Your task to perform on an android device: star an email in the gmail app Image 0: 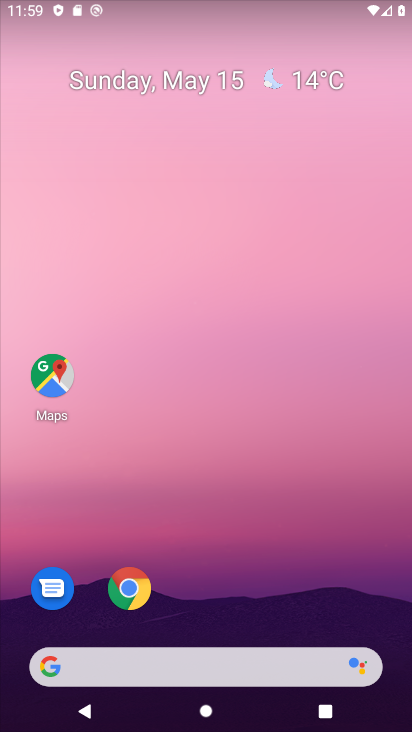
Step 0: drag from (190, 613) to (225, 222)
Your task to perform on an android device: star an email in the gmail app Image 1: 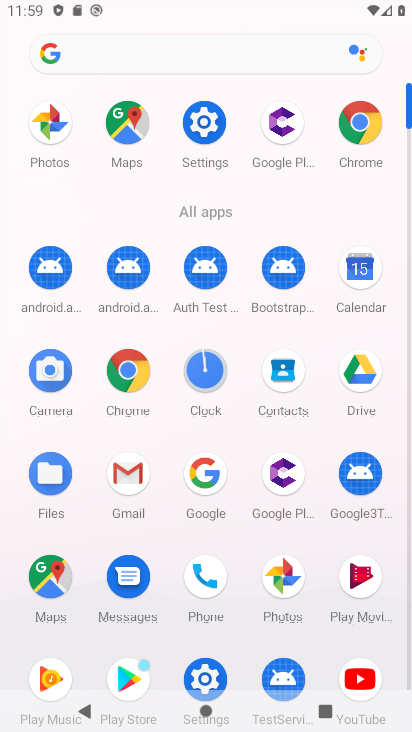
Step 1: click (133, 481)
Your task to perform on an android device: star an email in the gmail app Image 2: 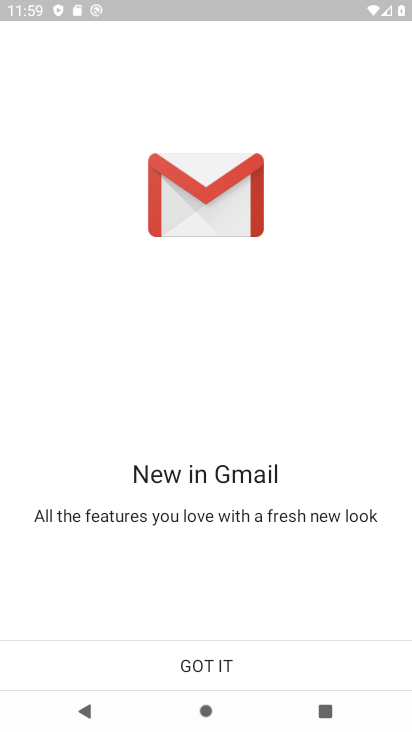
Step 2: click (208, 664)
Your task to perform on an android device: star an email in the gmail app Image 3: 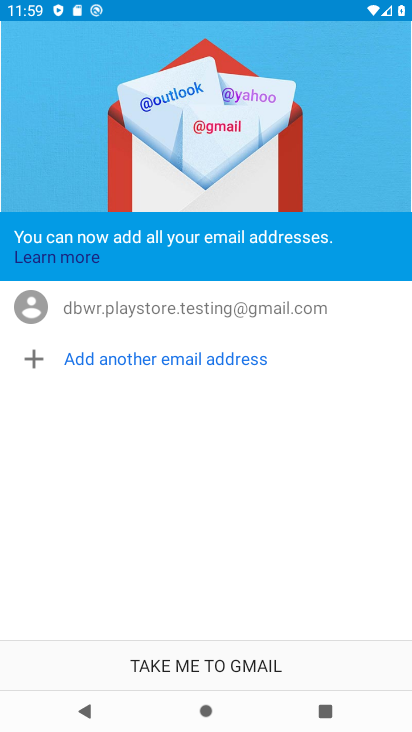
Step 3: click (201, 674)
Your task to perform on an android device: star an email in the gmail app Image 4: 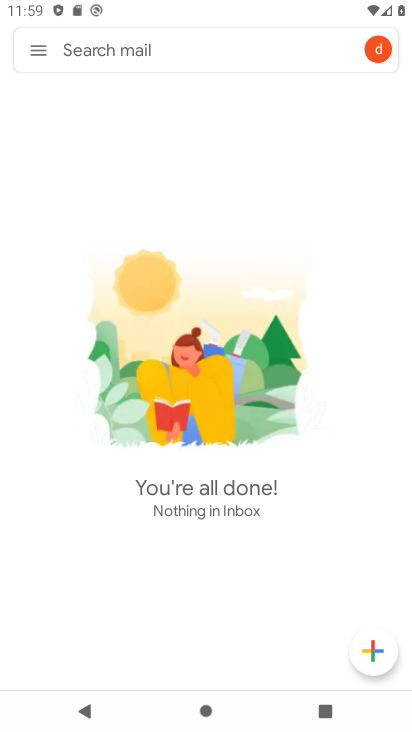
Step 4: click (43, 46)
Your task to perform on an android device: star an email in the gmail app Image 5: 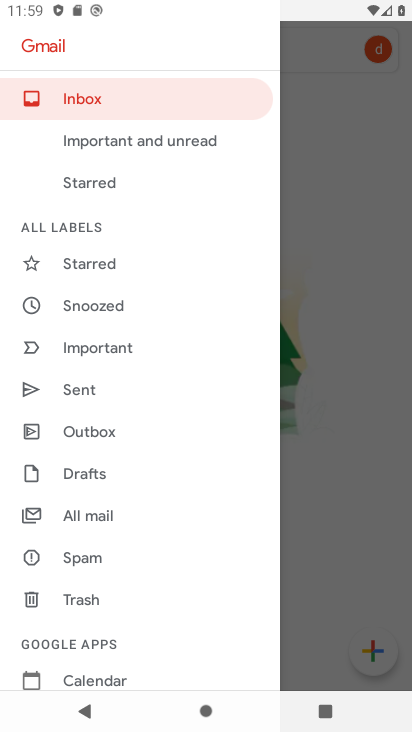
Step 5: click (93, 511)
Your task to perform on an android device: star an email in the gmail app Image 6: 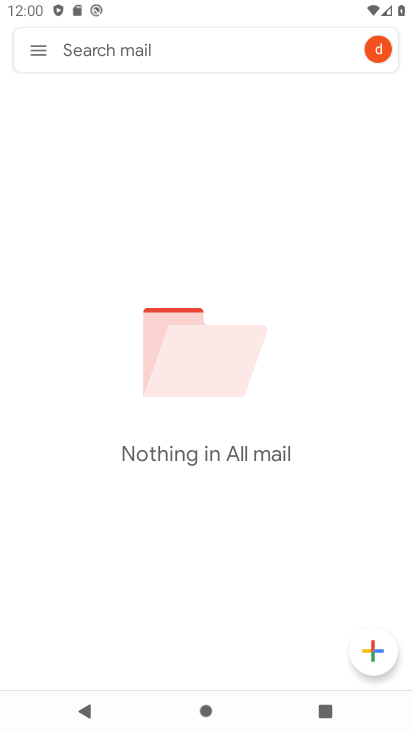
Step 6: task complete